Your task to perform on an android device: Open Wikipedia Image 0: 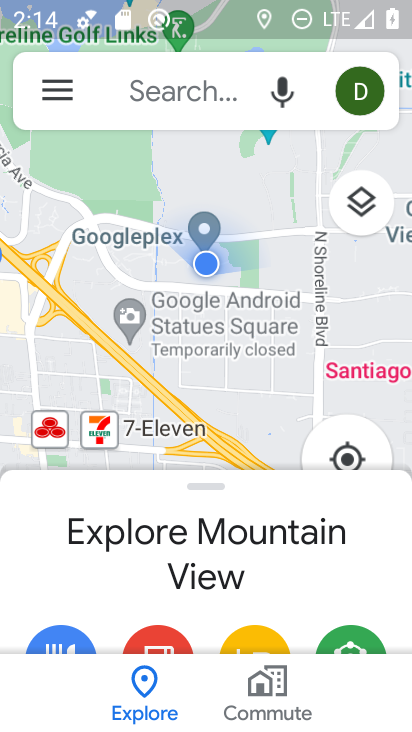
Step 0: press home button
Your task to perform on an android device: Open Wikipedia Image 1: 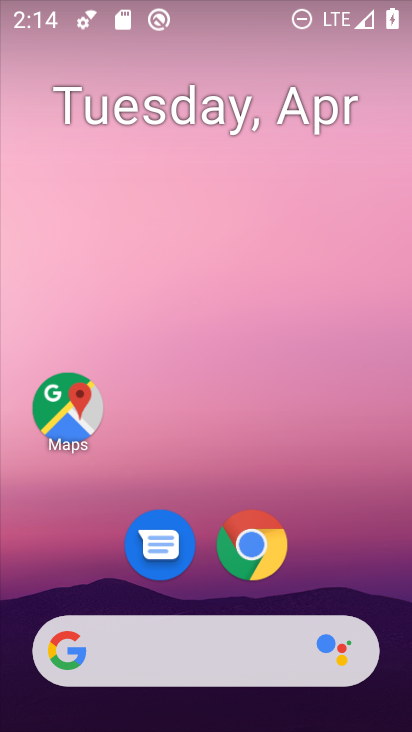
Step 1: drag from (396, 560) to (312, 179)
Your task to perform on an android device: Open Wikipedia Image 2: 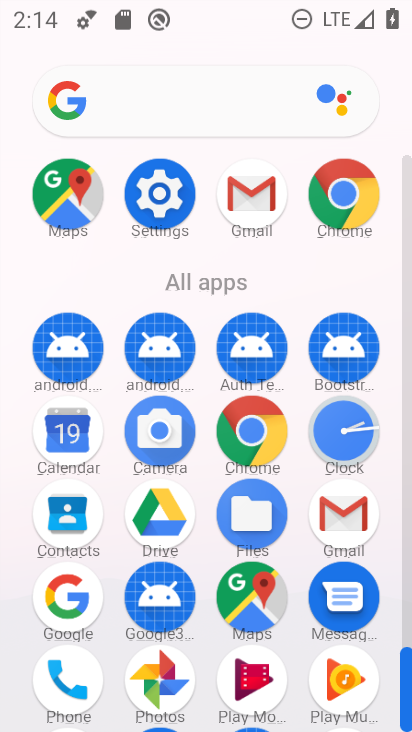
Step 2: click (326, 192)
Your task to perform on an android device: Open Wikipedia Image 3: 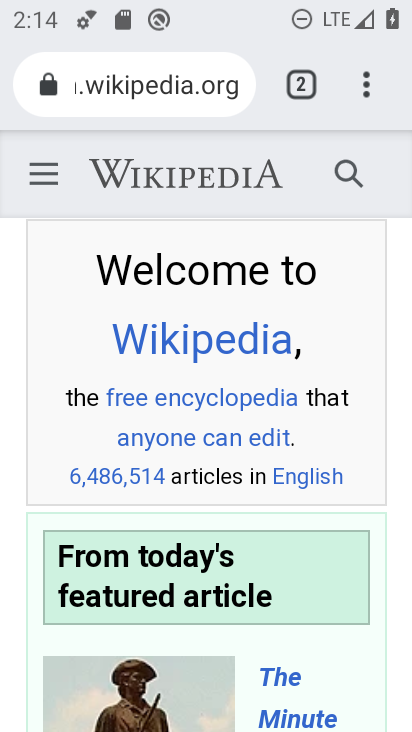
Step 3: task complete